Your task to perform on an android device: allow notifications from all sites in the chrome app Image 0: 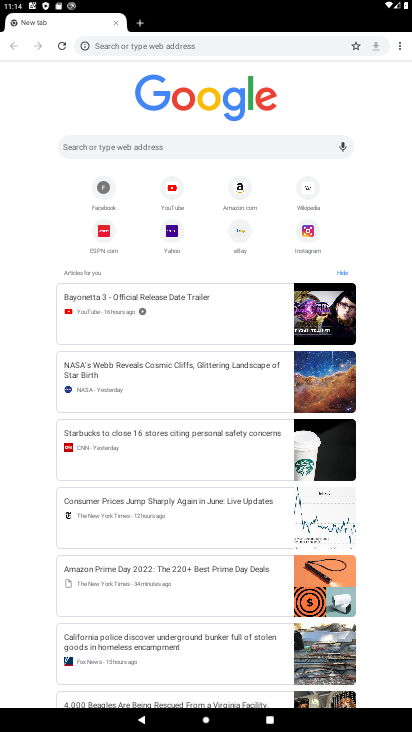
Step 0: press home button
Your task to perform on an android device: allow notifications from all sites in the chrome app Image 1: 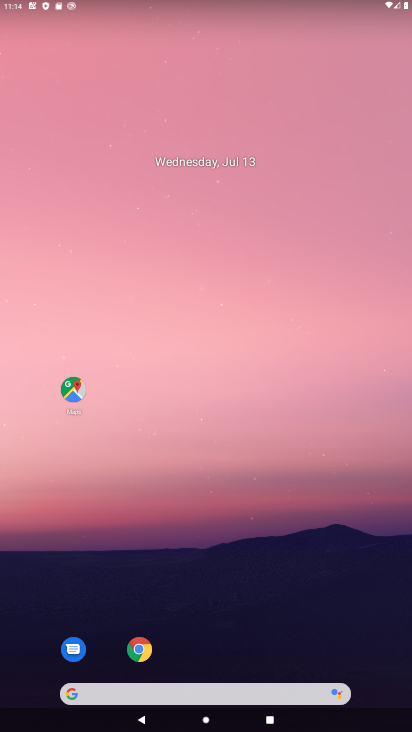
Step 1: click (138, 645)
Your task to perform on an android device: allow notifications from all sites in the chrome app Image 2: 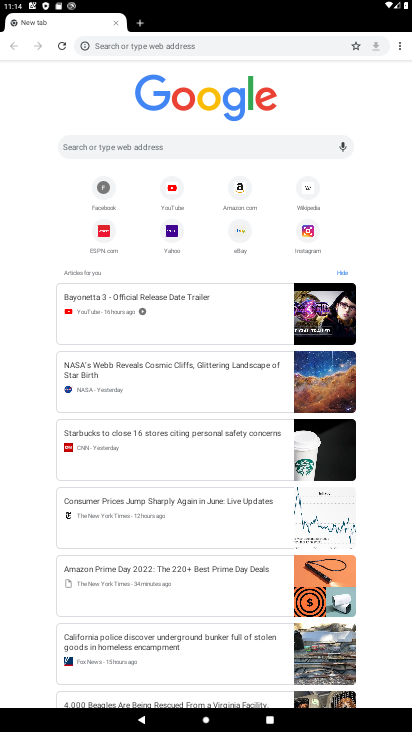
Step 2: click (405, 43)
Your task to perform on an android device: allow notifications from all sites in the chrome app Image 3: 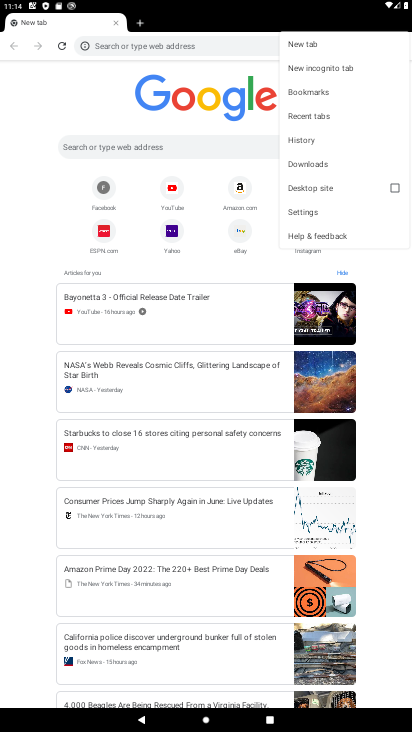
Step 3: click (317, 206)
Your task to perform on an android device: allow notifications from all sites in the chrome app Image 4: 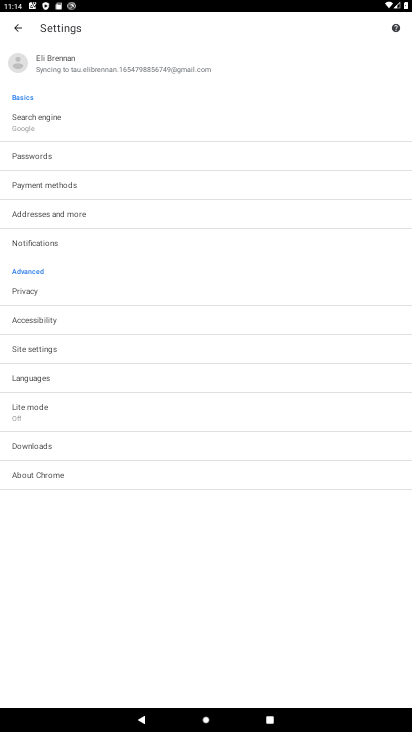
Step 4: click (51, 247)
Your task to perform on an android device: allow notifications from all sites in the chrome app Image 5: 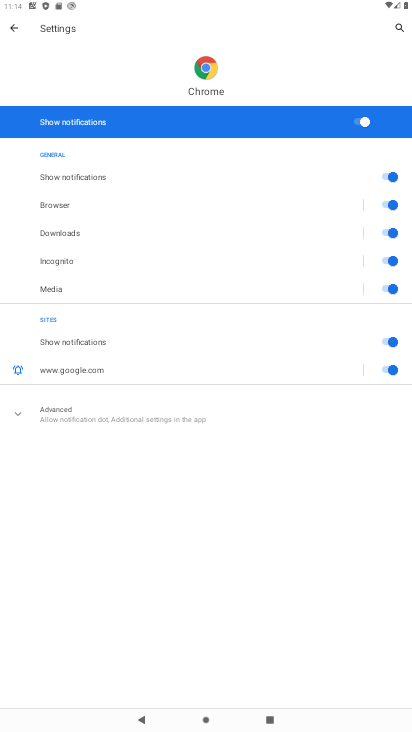
Step 5: task complete